Your task to perform on an android device: Search for pizza restaurants on Maps Image 0: 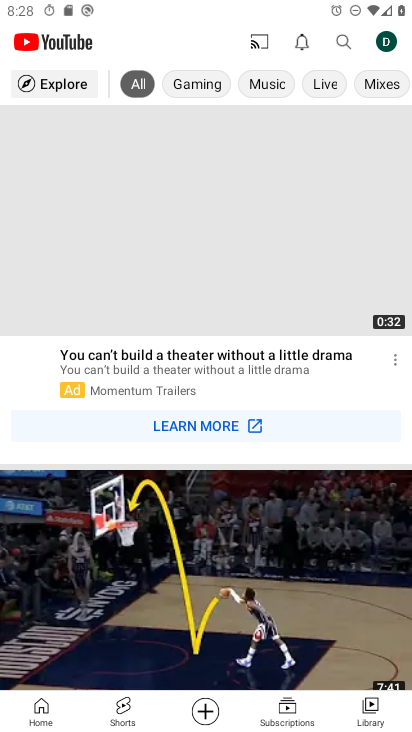
Step 0: press home button
Your task to perform on an android device: Search for pizza restaurants on Maps Image 1: 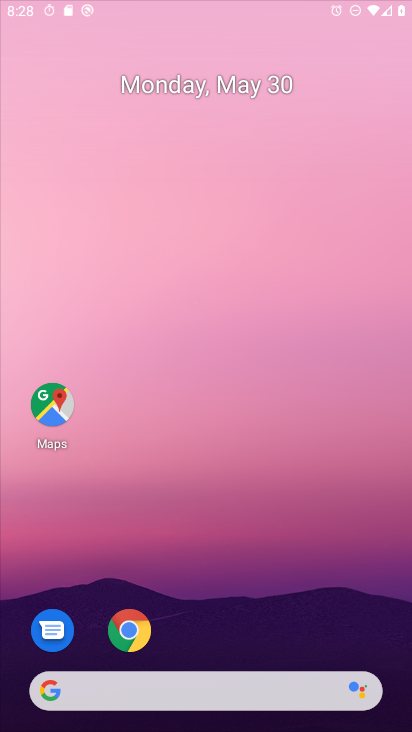
Step 1: drag from (352, 625) to (231, 16)
Your task to perform on an android device: Search for pizza restaurants on Maps Image 2: 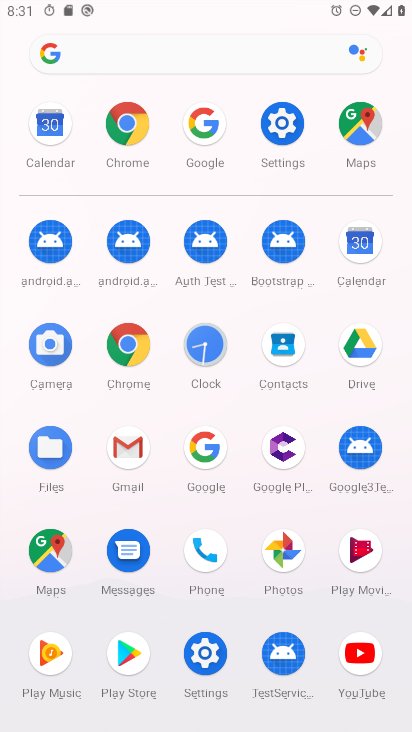
Step 2: click (376, 142)
Your task to perform on an android device: Search for pizza restaurants on Maps Image 3: 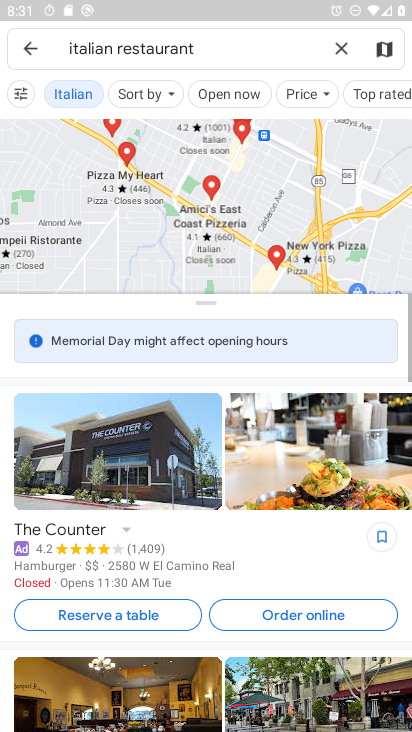
Step 3: click (337, 41)
Your task to perform on an android device: Search for pizza restaurants on Maps Image 4: 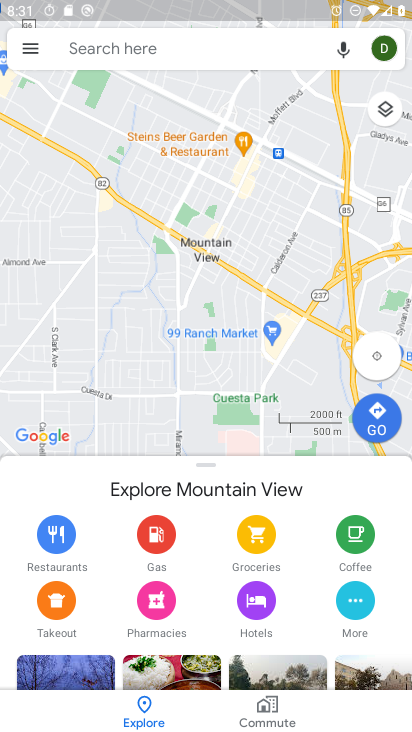
Step 4: click (195, 52)
Your task to perform on an android device: Search for pizza restaurants on Maps Image 5: 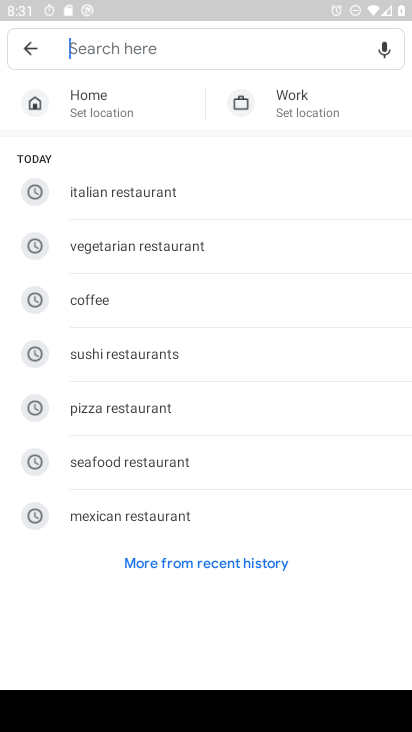
Step 5: click (157, 401)
Your task to perform on an android device: Search for pizza restaurants on Maps Image 6: 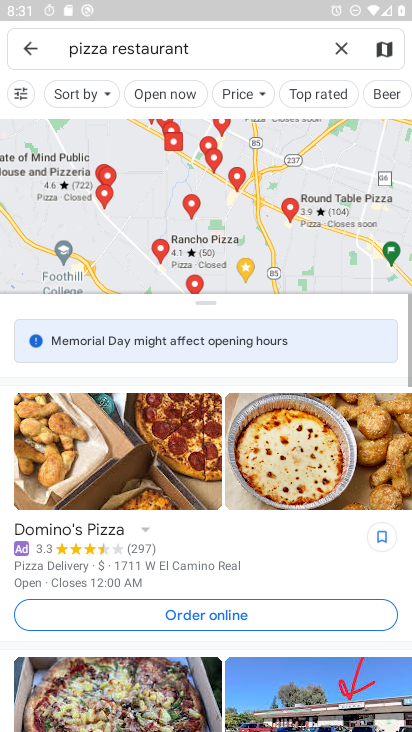
Step 6: task complete